Your task to perform on an android device: Open Google Maps and go to "Timeline" Image 0: 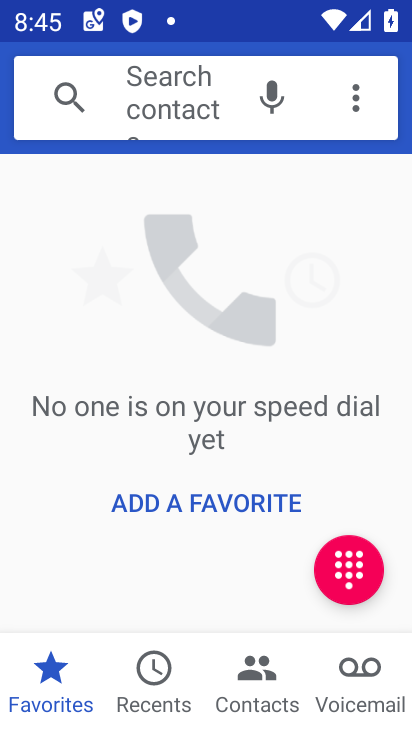
Step 0: press home button
Your task to perform on an android device: Open Google Maps and go to "Timeline" Image 1: 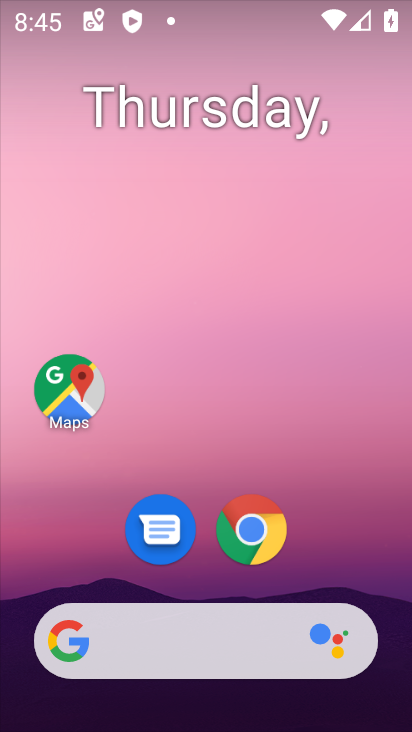
Step 1: click (206, 725)
Your task to perform on an android device: Open Google Maps and go to "Timeline" Image 2: 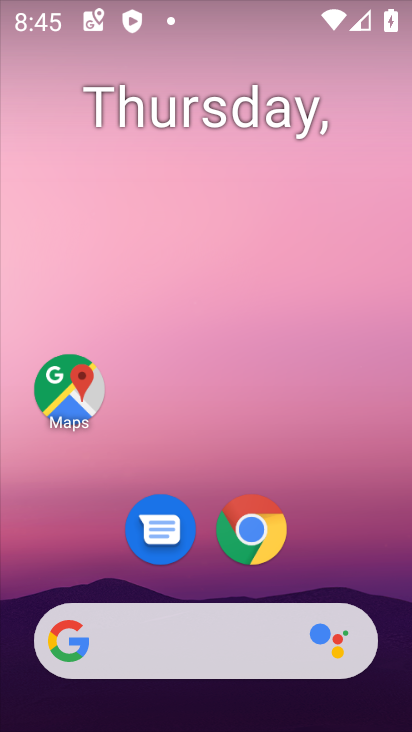
Step 2: drag from (250, 64) to (253, 7)
Your task to perform on an android device: Open Google Maps and go to "Timeline" Image 3: 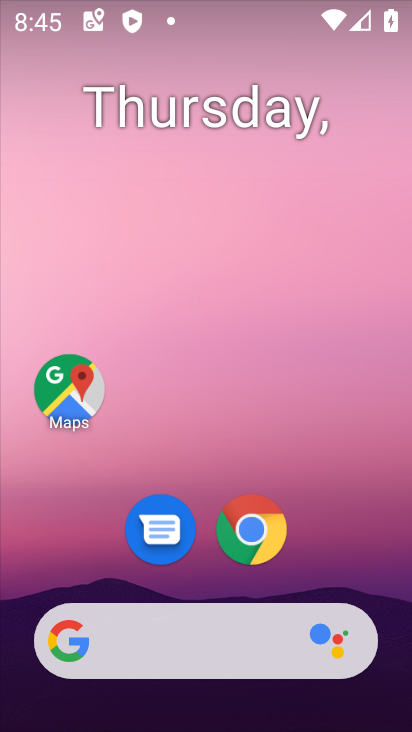
Step 3: drag from (202, 724) to (205, 427)
Your task to perform on an android device: Open Google Maps and go to "Timeline" Image 4: 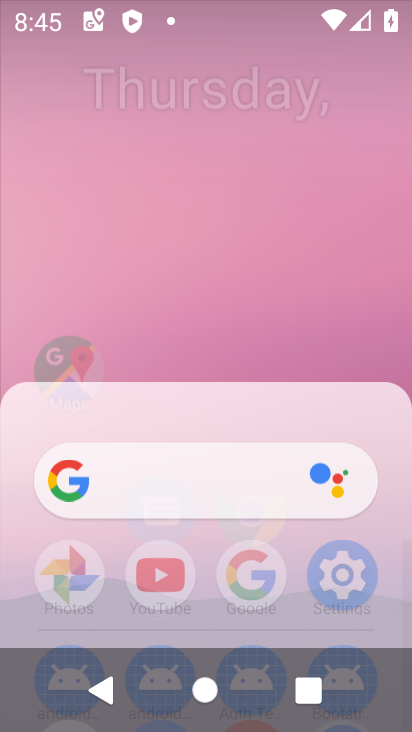
Step 4: click (208, 128)
Your task to perform on an android device: Open Google Maps and go to "Timeline" Image 5: 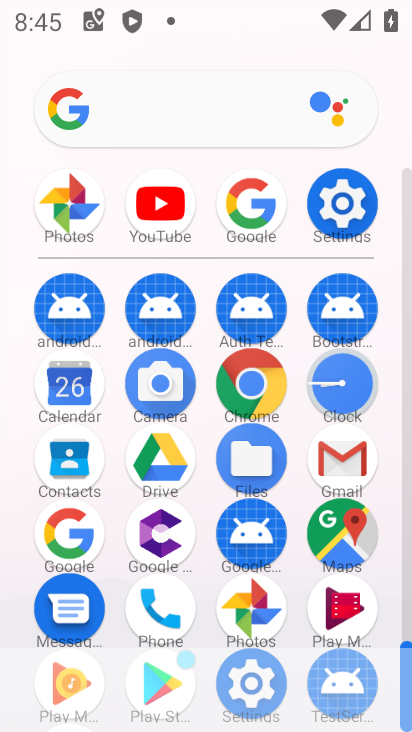
Step 5: click (345, 537)
Your task to perform on an android device: Open Google Maps and go to "Timeline" Image 6: 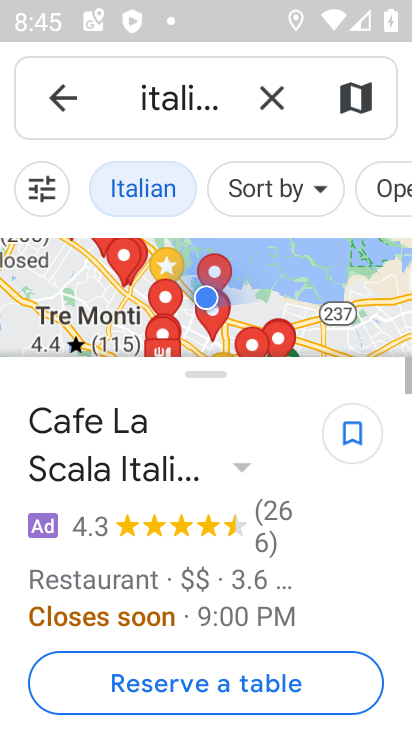
Step 6: click (61, 92)
Your task to perform on an android device: Open Google Maps and go to "Timeline" Image 7: 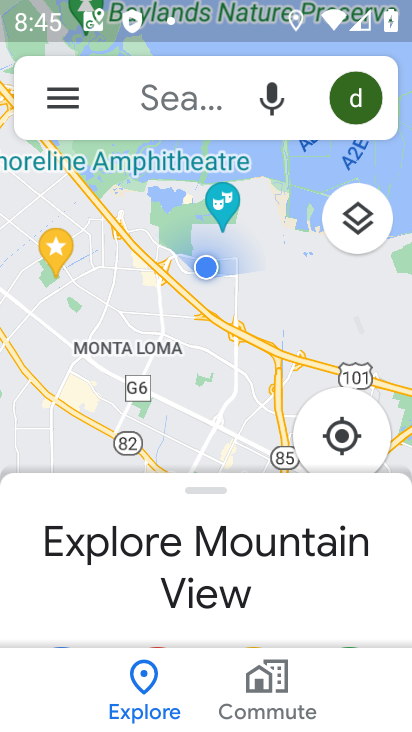
Step 7: click (61, 92)
Your task to perform on an android device: Open Google Maps and go to "Timeline" Image 8: 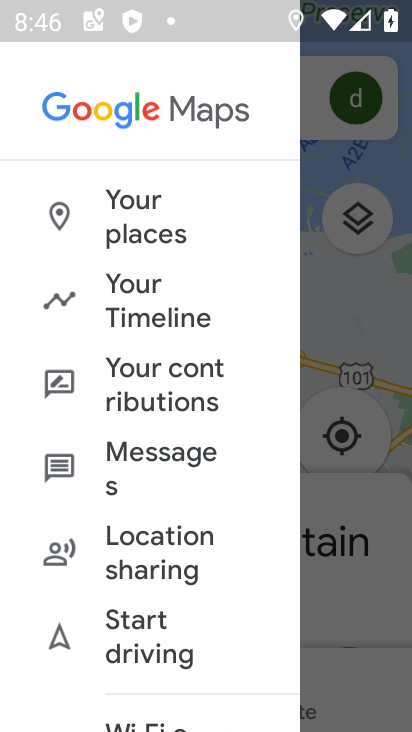
Step 8: click (146, 306)
Your task to perform on an android device: Open Google Maps and go to "Timeline" Image 9: 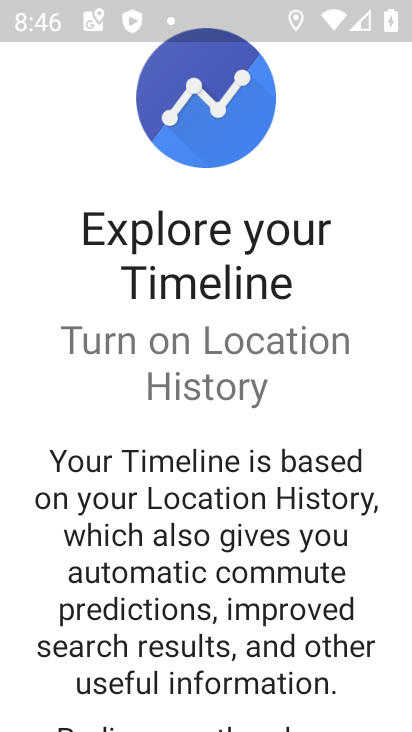
Step 9: drag from (213, 707) to (227, 205)
Your task to perform on an android device: Open Google Maps and go to "Timeline" Image 10: 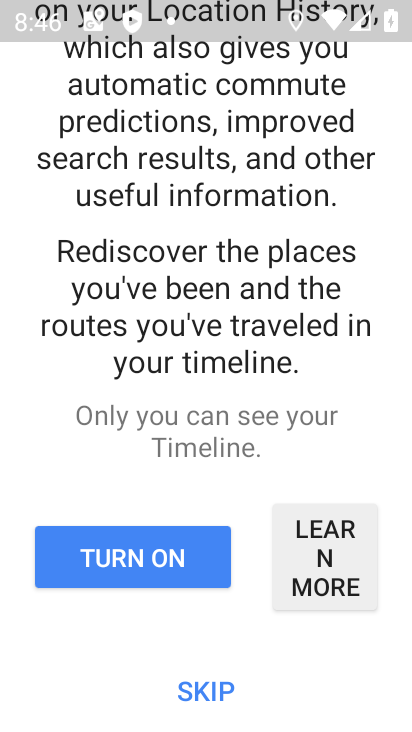
Step 10: click (210, 683)
Your task to perform on an android device: Open Google Maps and go to "Timeline" Image 11: 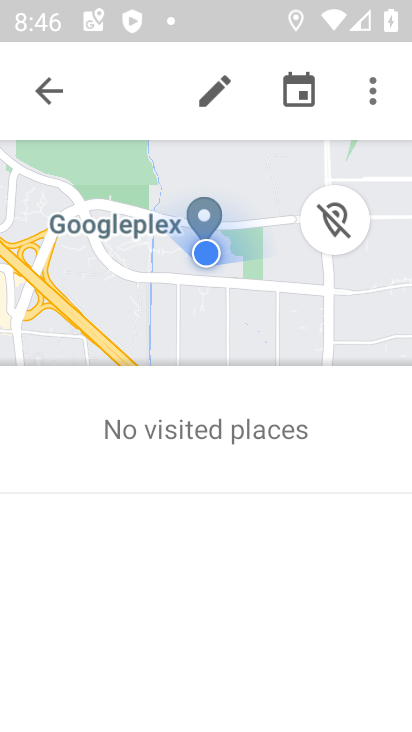
Step 11: task complete